Your task to perform on an android device: Open accessibility settings Image 0: 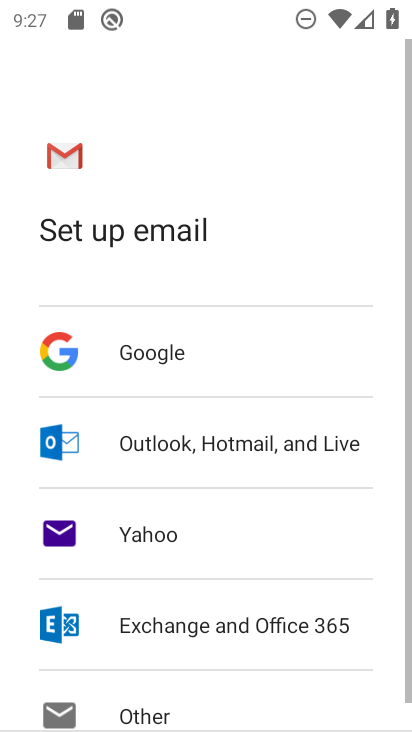
Step 0: press home button
Your task to perform on an android device: Open accessibility settings Image 1: 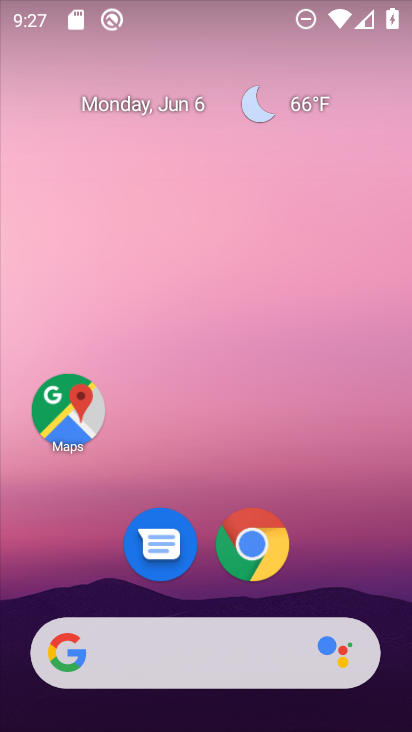
Step 1: drag from (237, 360) to (231, 222)
Your task to perform on an android device: Open accessibility settings Image 2: 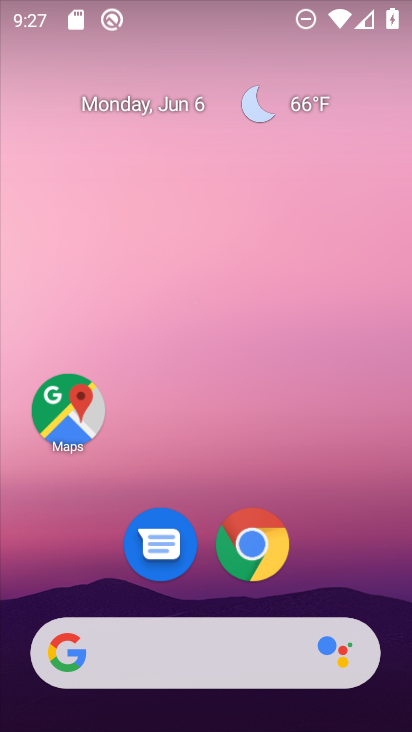
Step 2: drag from (214, 597) to (195, 227)
Your task to perform on an android device: Open accessibility settings Image 3: 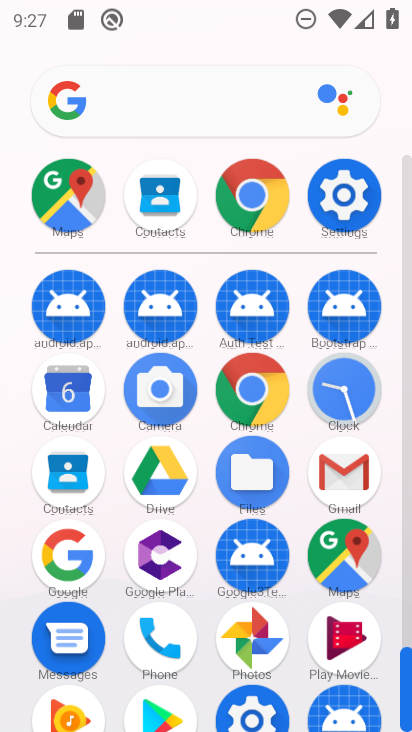
Step 3: click (341, 190)
Your task to perform on an android device: Open accessibility settings Image 4: 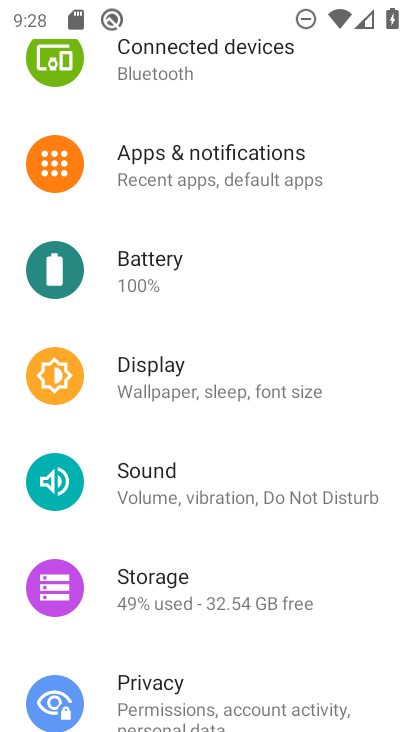
Step 4: drag from (205, 627) to (236, 149)
Your task to perform on an android device: Open accessibility settings Image 5: 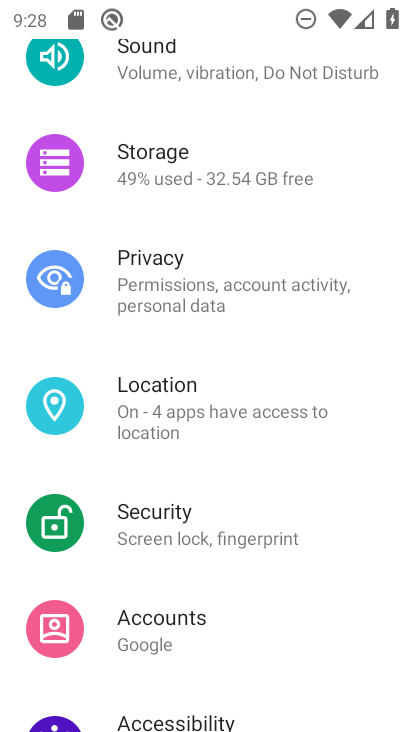
Step 5: drag from (215, 664) to (275, 304)
Your task to perform on an android device: Open accessibility settings Image 6: 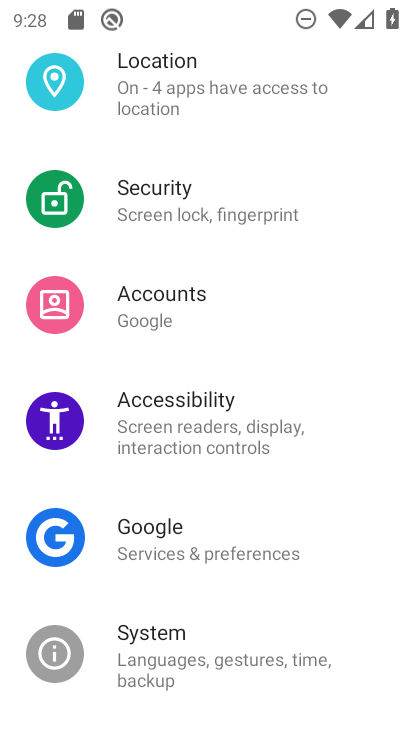
Step 6: click (174, 615)
Your task to perform on an android device: Open accessibility settings Image 7: 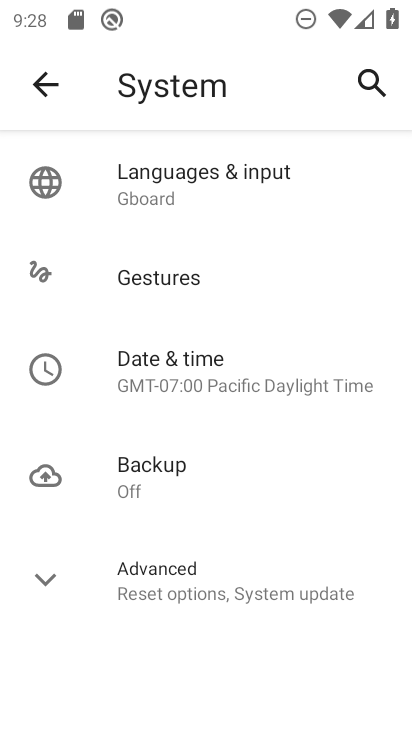
Step 7: task complete